Your task to perform on an android device: open a new tab in the chrome app Image 0: 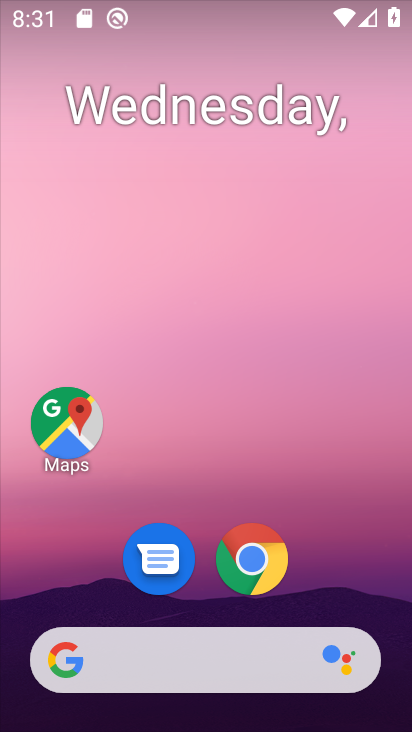
Step 0: click (226, 561)
Your task to perform on an android device: open a new tab in the chrome app Image 1: 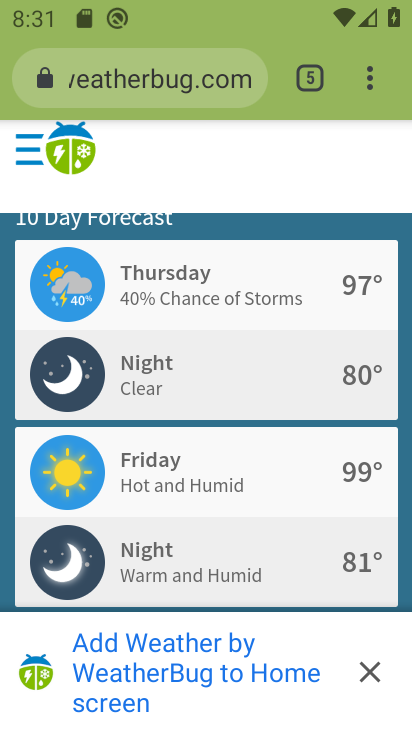
Step 1: click (304, 83)
Your task to perform on an android device: open a new tab in the chrome app Image 2: 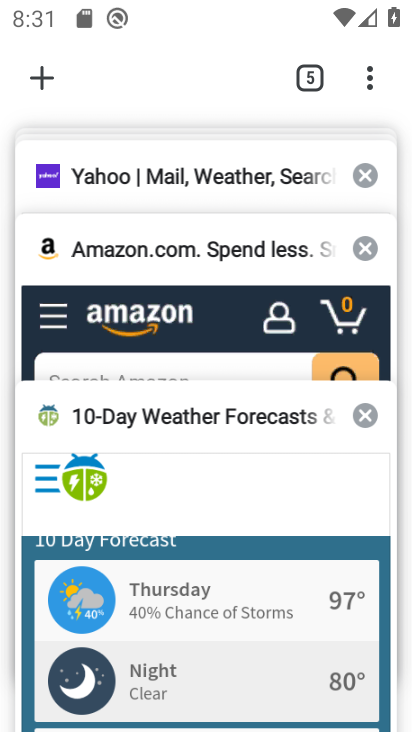
Step 2: click (37, 75)
Your task to perform on an android device: open a new tab in the chrome app Image 3: 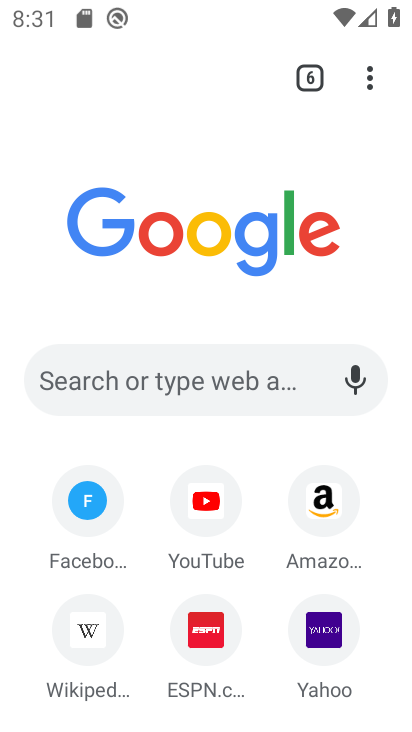
Step 3: task complete